Your task to perform on an android device: Open location settings Image 0: 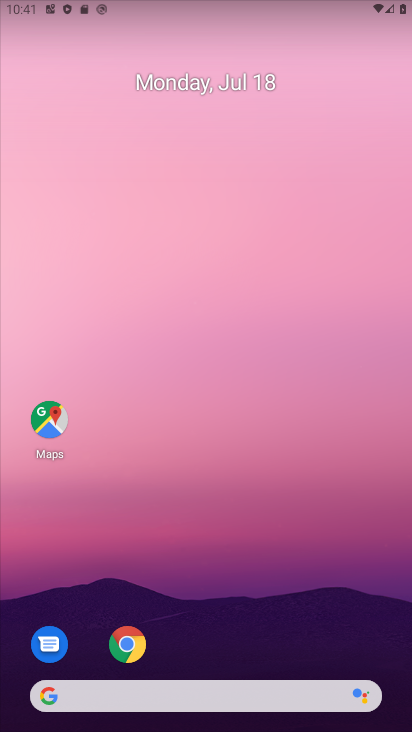
Step 0: drag from (199, 643) to (247, 51)
Your task to perform on an android device: Open location settings Image 1: 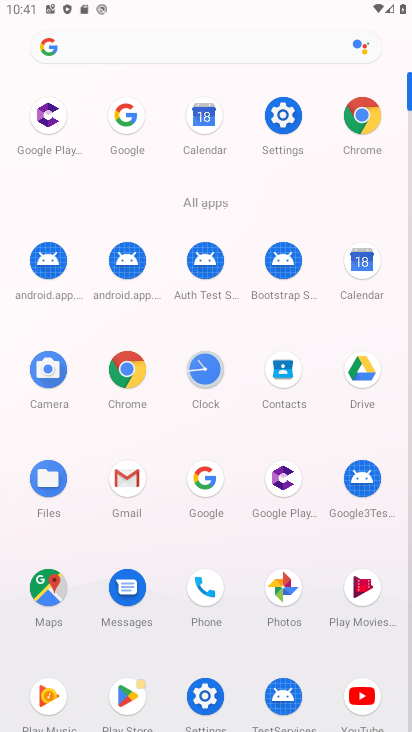
Step 1: click (280, 114)
Your task to perform on an android device: Open location settings Image 2: 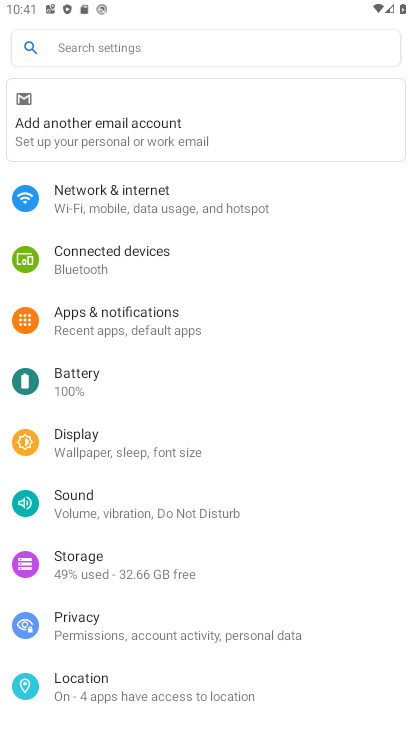
Step 2: click (105, 687)
Your task to perform on an android device: Open location settings Image 3: 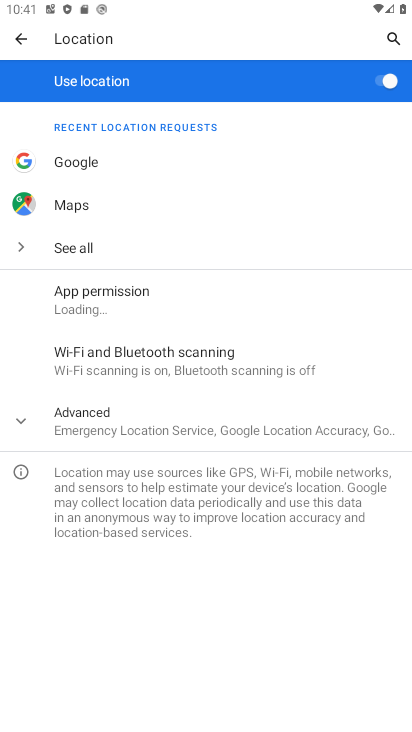
Step 3: task complete